Your task to perform on an android device: Open Android settings Image 0: 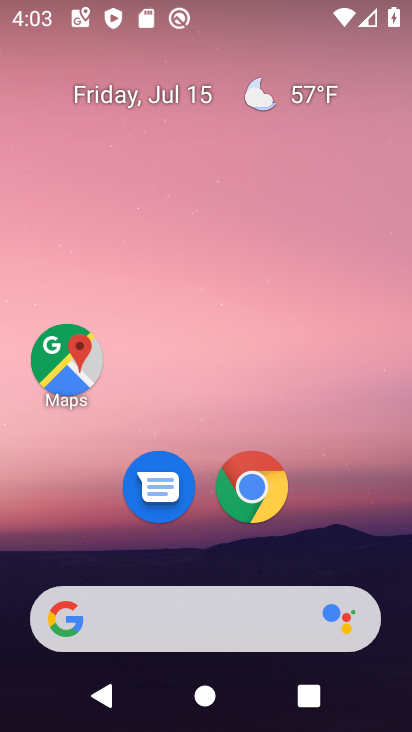
Step 0: drag from (188, 572) to (252, 127)
Your task to perform on an android device: Open Android settings Image 1: 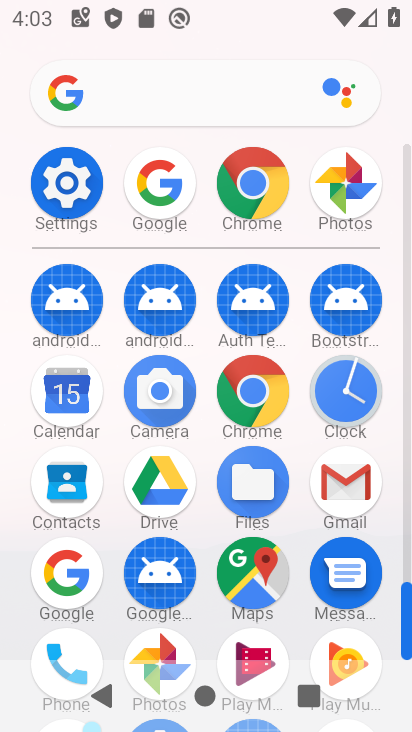
Step 1: click (84, 199)
Your task to perform on an android device: Open Android settings Image 2: 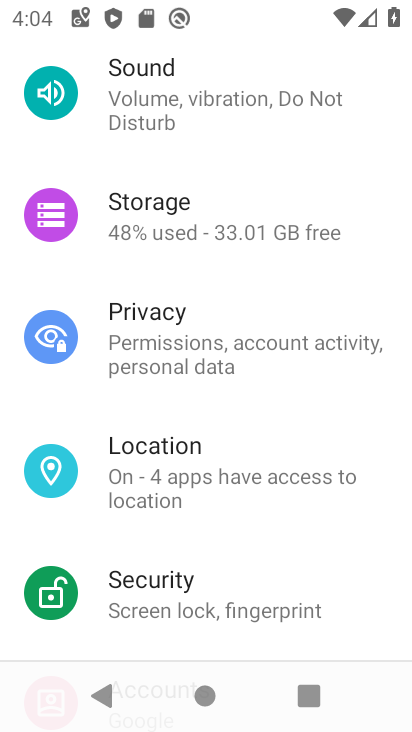
Step 2: drag from (193, 530) to (263, 171)
Your task to perform on an android device: Open Android settings Image 3: 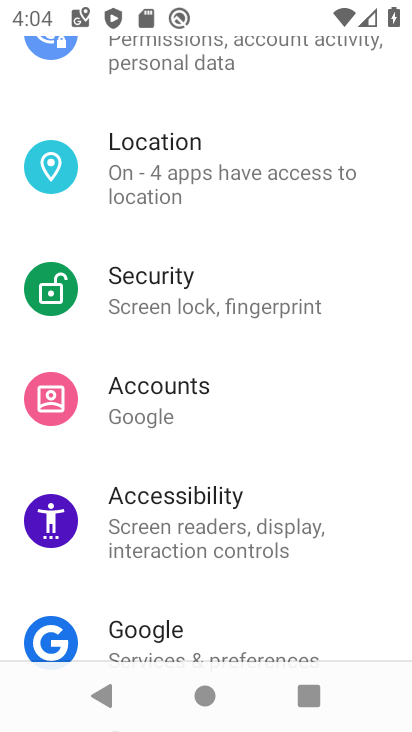
Step 3: drag from (179, 547) to (243, 197)
Your task to perform on an android device: Open Android settings Image 4: 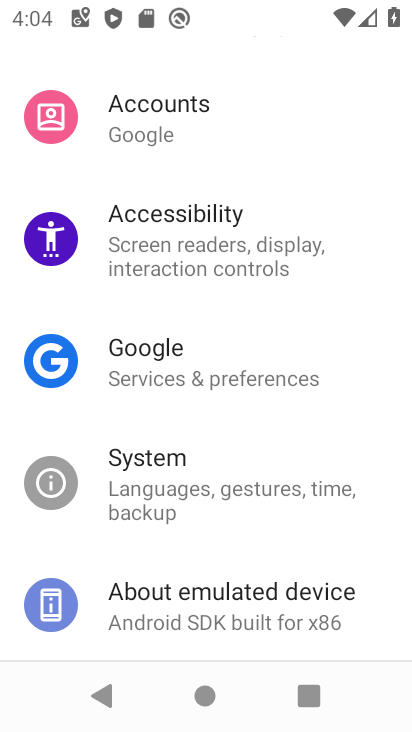
Step 4: drag from (187, 478) to (209, 307)
Your task to perform on an android device: Open Android settings Image 5: 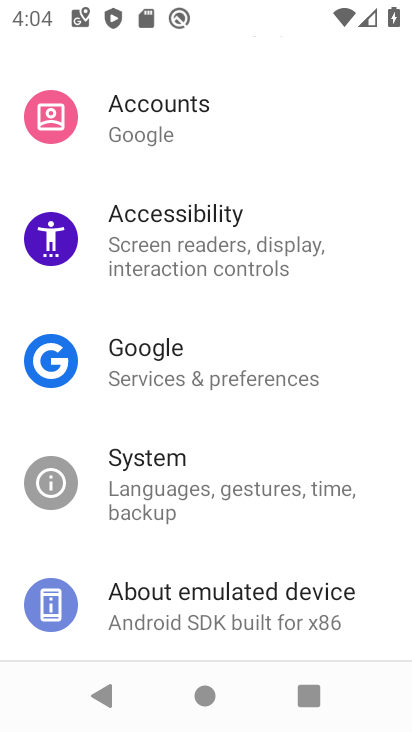
Step 5: click (236, 600)
Your task to perform on an android device: Open Android settings Image 6: 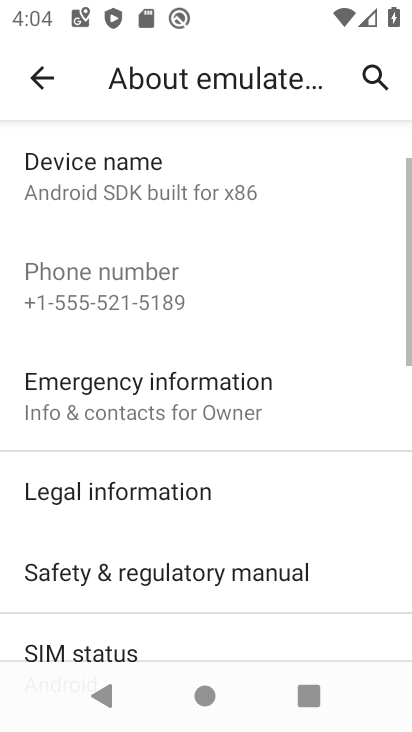
Step 6: drag from (224, 498) to (206, 212)
Your task to perform on an android device: Open Android settings Image 7: 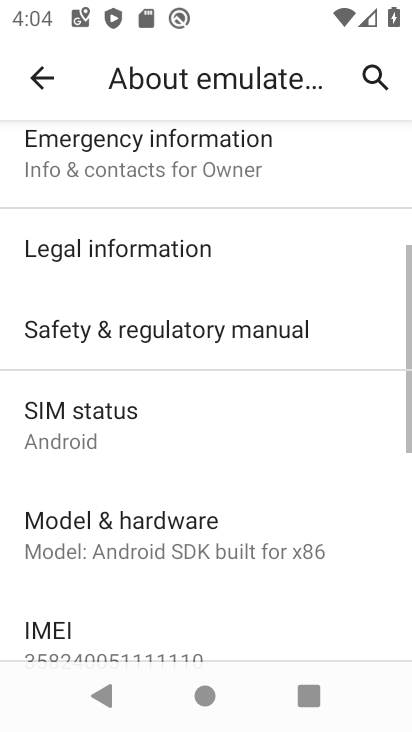
Step 7: drag from (215, 471) to (236, 213)
Your task to perform on an android device: Open Android settings Image 8: 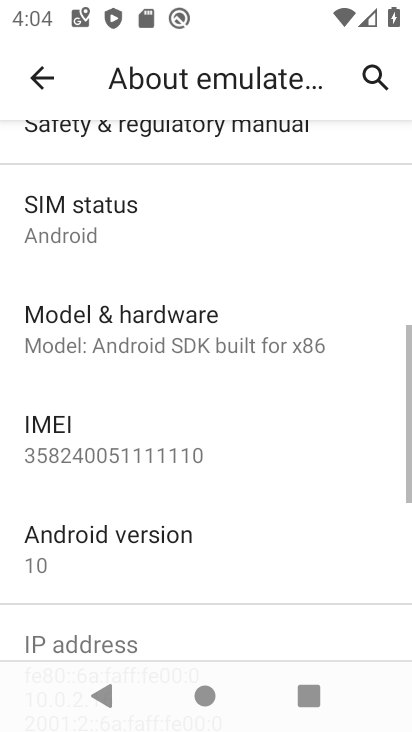
Step 8: click (216, 558)
Your task to perform on an android device: Open Android settings Image 9: 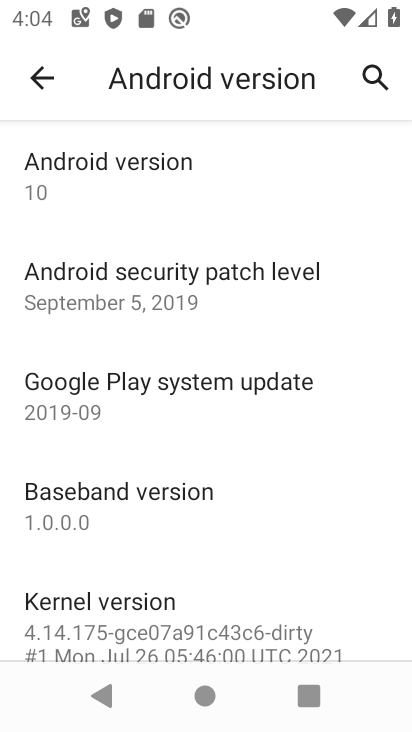
Step 9: click (158, 182)
Your task to perform on an android device: Open Android settings Image 10: 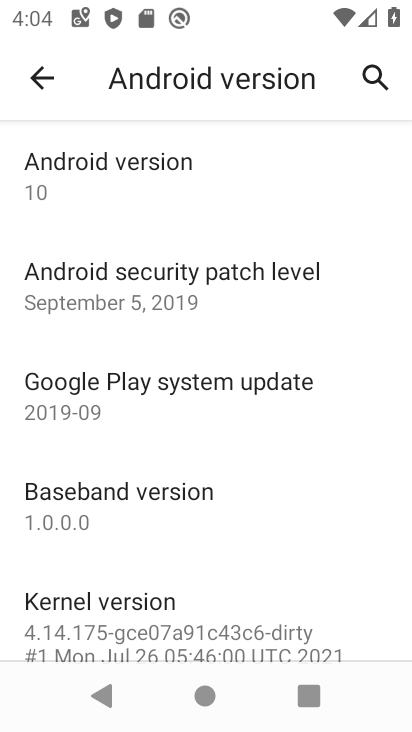
Step 10: task complete